Your task to perform on an android device: turn off location Image 0: 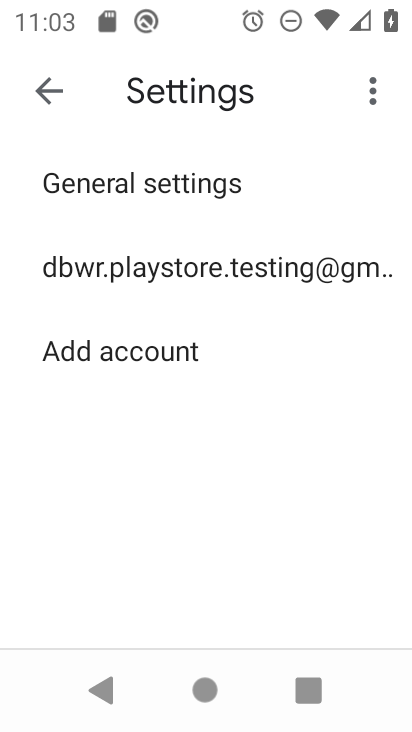
Step 0: press home button
Your task to perform on an android device: turn off location Image 1: 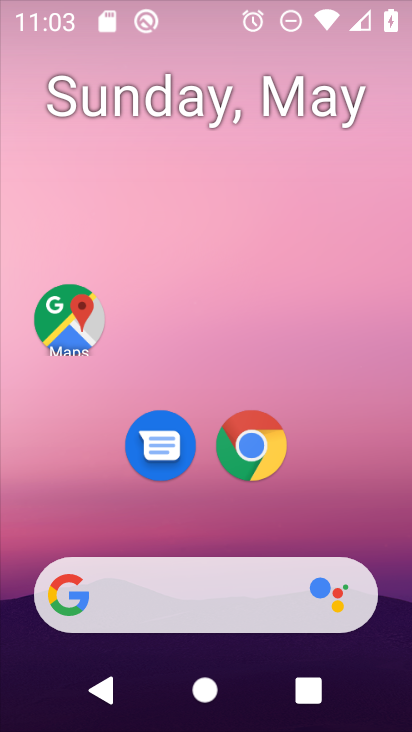
Step 1: drag from (263, 497) to (329, 144)
Your task to perform on an android device: turn off location Image 2: 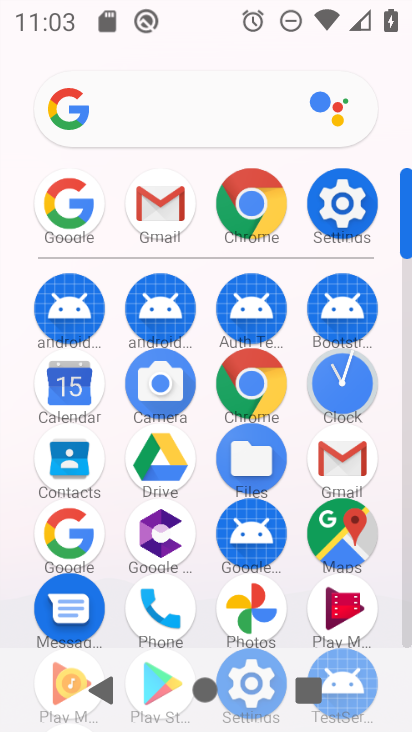
Step 2: click (335, 196)
Your task to perform on an android device: turn off location Image 3: 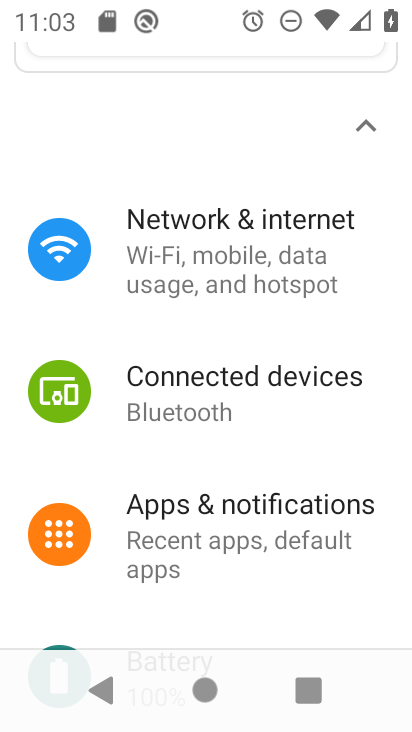
Step 3: drag from (257, 454) to (265, 93)
Your task to perform on an android device: turn off location Image 4: 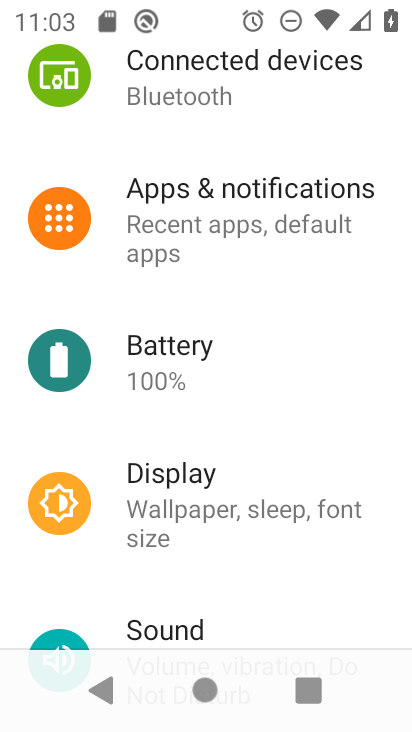
Step 4: drag from (221, 445) to (263, 130)
Your task to perform on an android device: turn off location Image 5: 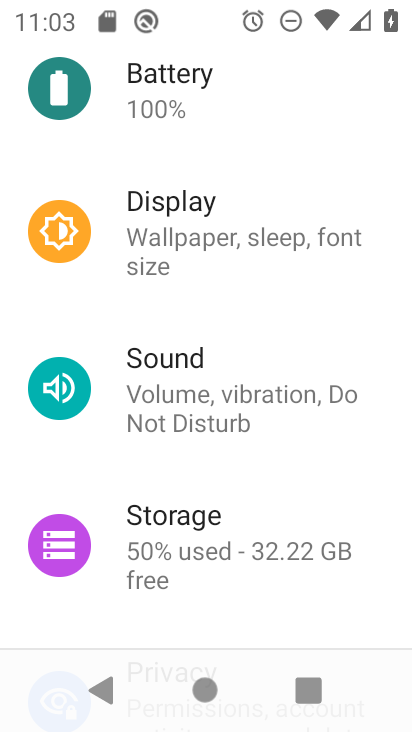
Step 5: drag from (257, 460) to (275, 115)
Your task to perform on an android device: turn off location Image 6: 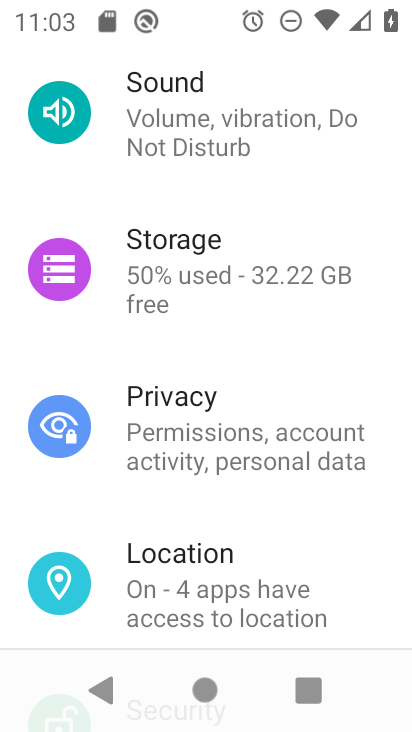
Step 6: click (273, 565)
Your task to perform on an android device: turn off location Image 7: 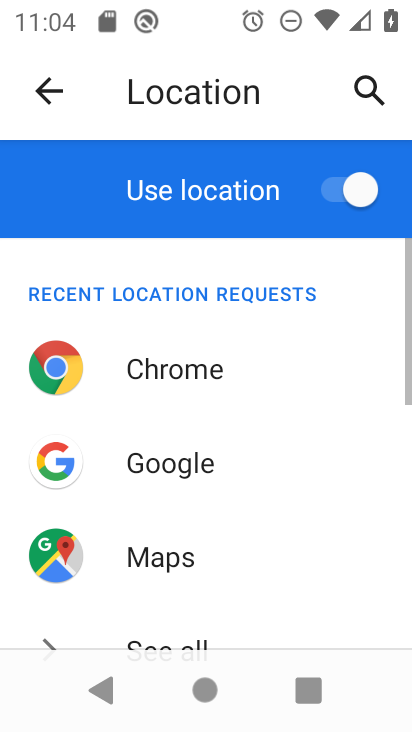
Step 7: click (336, 207)
Your task to perform on an android device: turn off location Image 8: 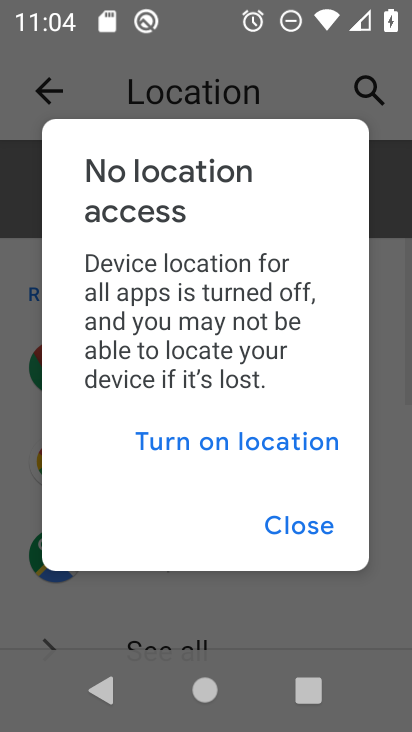
Step 8: task complete